Your task to perform on an android device: Go to wifi settings Image 0: 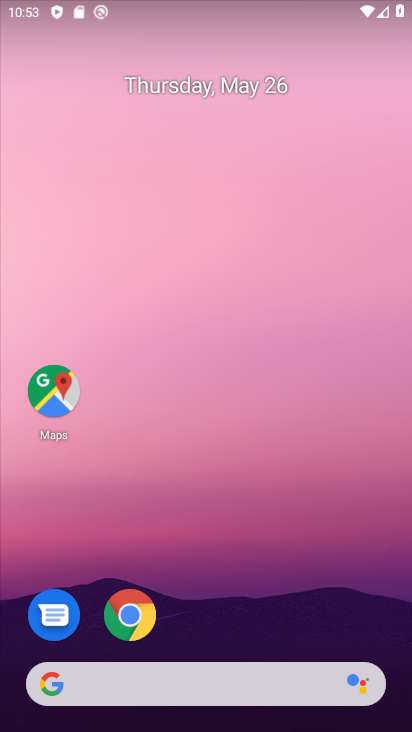
Step 0: drag from (343, 3) to (411, 591)
Your task to perform on an android device: Go to wifi settings Image 1: 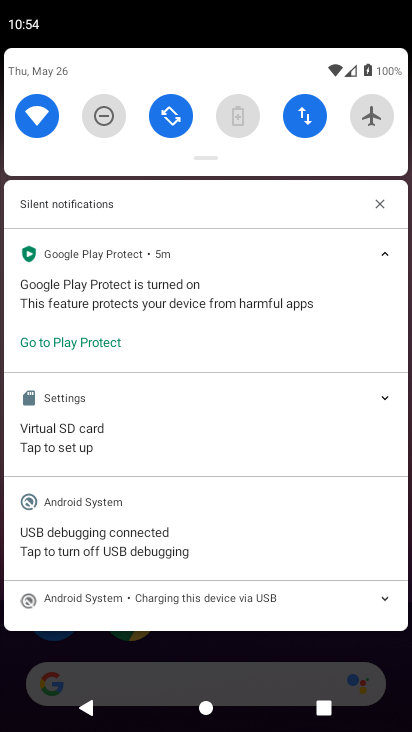
Step 1: click (26, 119)
Your task to perform on an android device: Go to wifi settings Image 2: 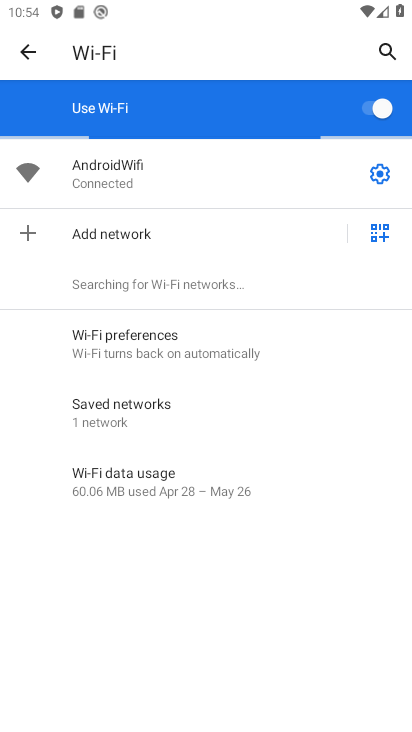
Step 2: task complete